Your task to perform on an android device: Go to Wikipedia Image 0: 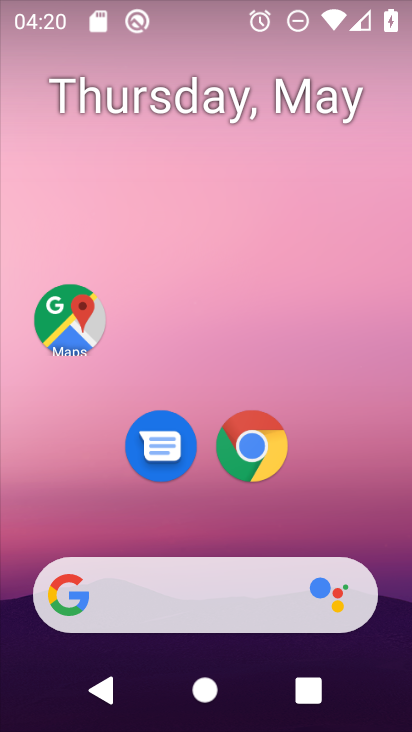
Step 0: click (248, 453)
Your task to perform on an android device: Go to Wikipedia Image 1: 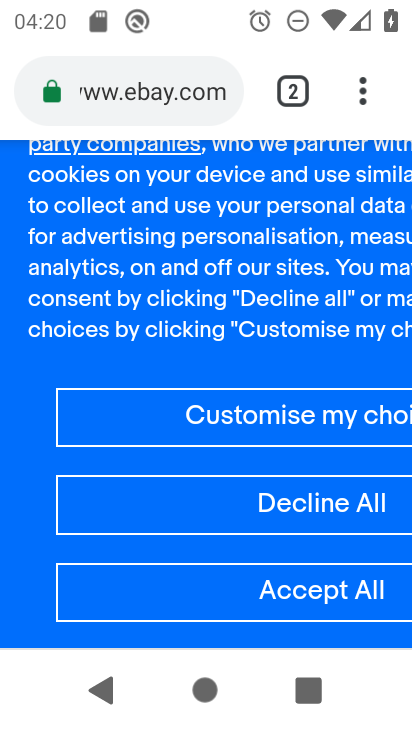
Step 1: click (108, 95)
Your task to perform on an android device: Go to Wikipedia Image 2: 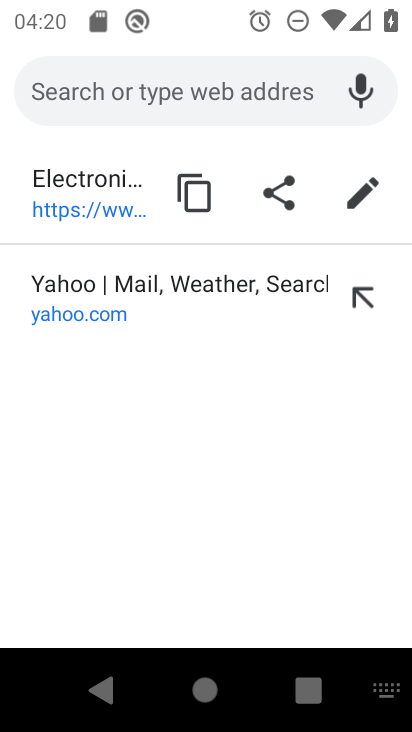
Step 2: type "wikipedia"
Your task to perform on an android device: Go to Wikipedia Image 3: 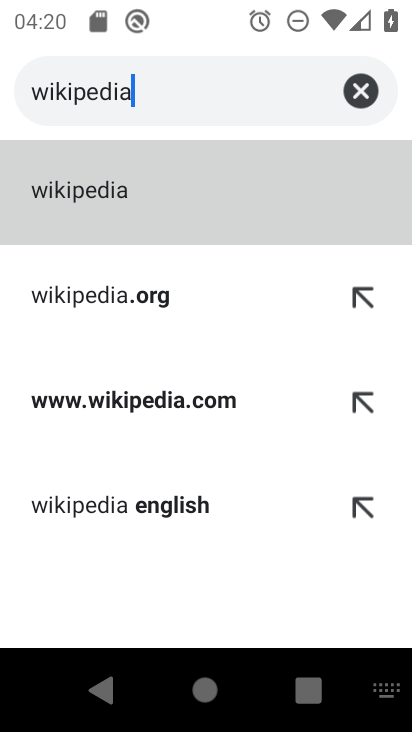
Step 3: click (100, 306)
Your task to perform on an android device: Go to Wikipedia Image 4: 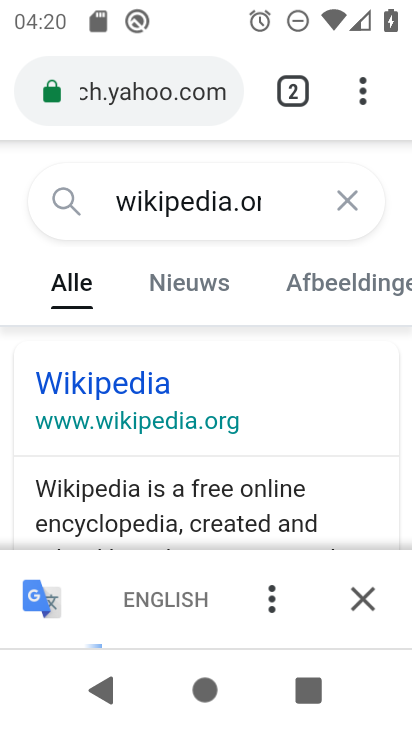
Step 4: click (92, 419)
Your task to perform on an android device: Go to Wikipedia Image 5: 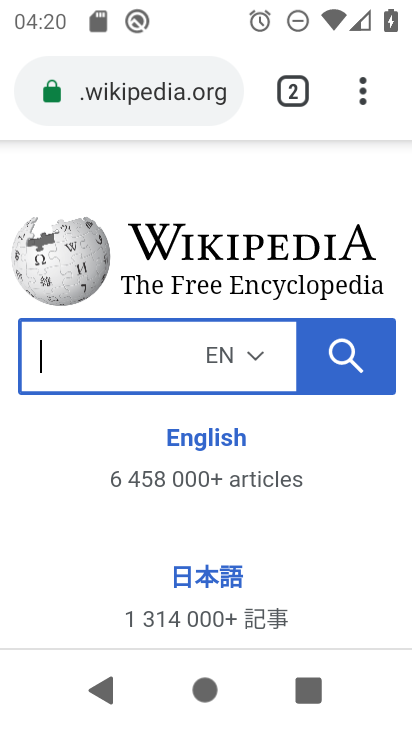
Step 5: task complete